Your task to perform on an android device: Open eBay Image 0: 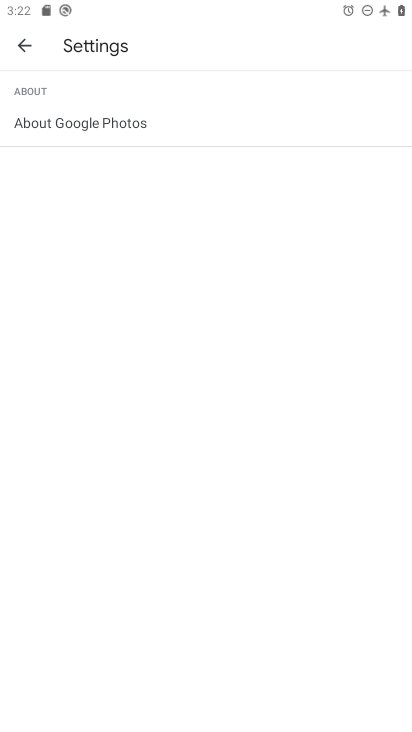
Step 0: press home button
Your task to perform on an android device: Open eBay Image 1: 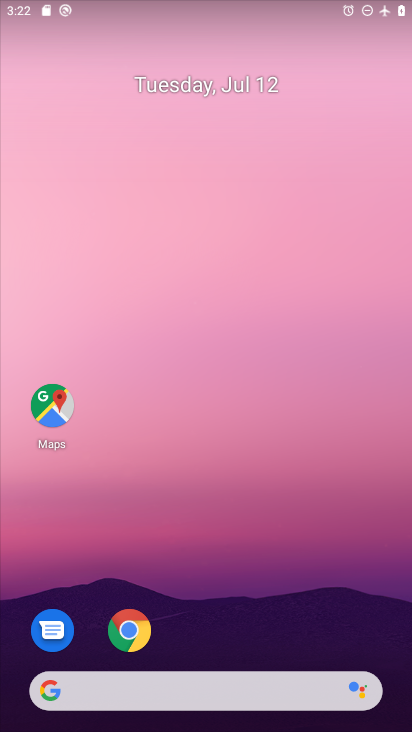
Step 1: click (140, 624)
Your task to perform on an android device: Open eBay Image 2: 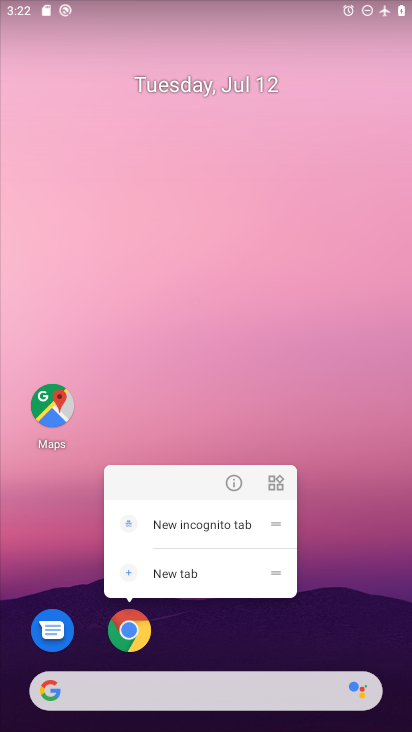
Step 2: click (124, 622)
Your task to perform on an android device: Open eBay Image 3: 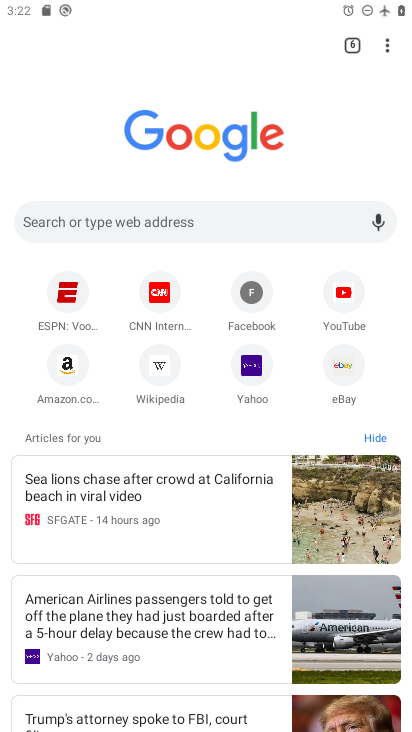
Step 3: click (366, 353)
Your task to perform on an android device: Open eBay Image 4: 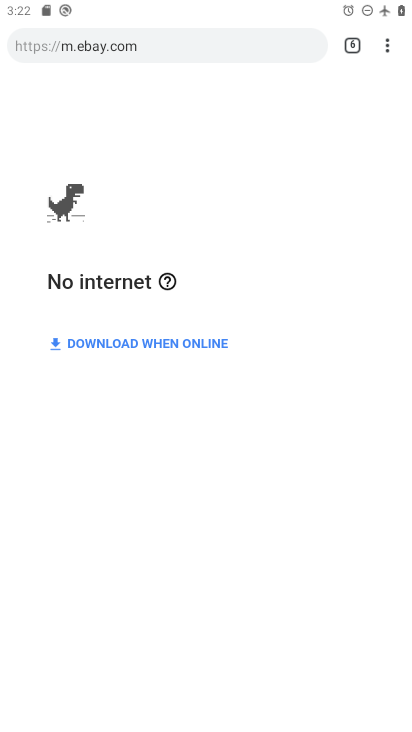
Step 4: task complete